Your task to perform on an android device: Search for vegetarian restaurants on Maps Image 0: 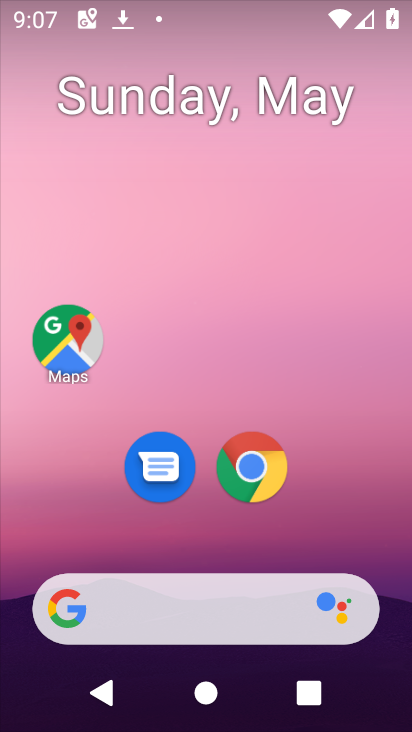
Step 0: drag from (402, 502) to (346, 142)
Your task to perform on an android device: Search for vegetarian restaurants on Maps Image 1: 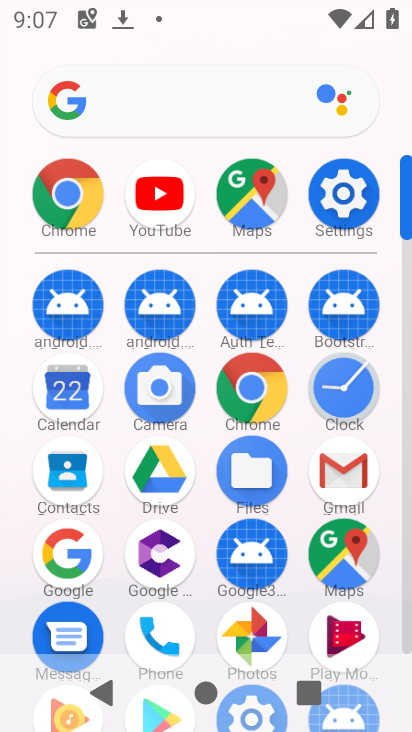
Step 1: click (265, 190)
Your task to perform on an android device: Search for vegetarian restaurants on Maps Image 2: 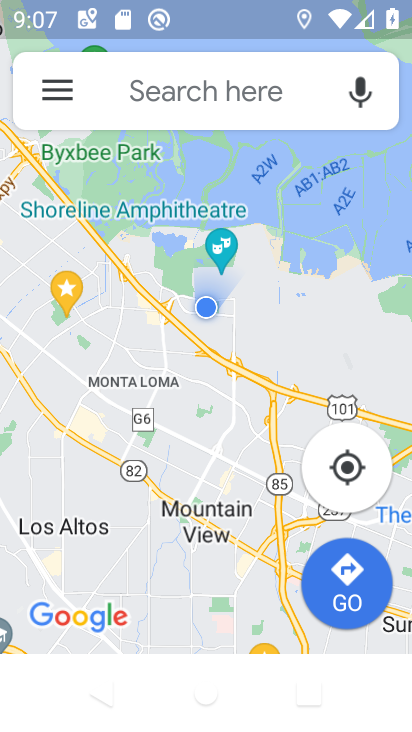
Step 2: click (219, 110)
Your task to perform on an android device: Search for vegetarian restaurants on Maps Image 3: 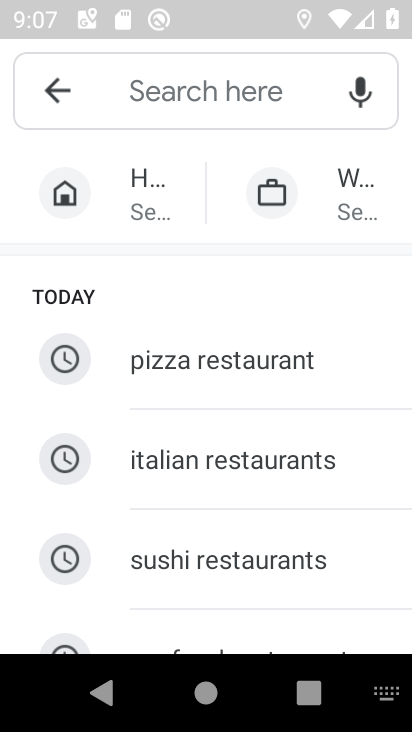
Step 3: drag from (189, 620) to (179, 299)
Your task to perform on an android device: Search for vegetarian restaurants on Maps Image 4: 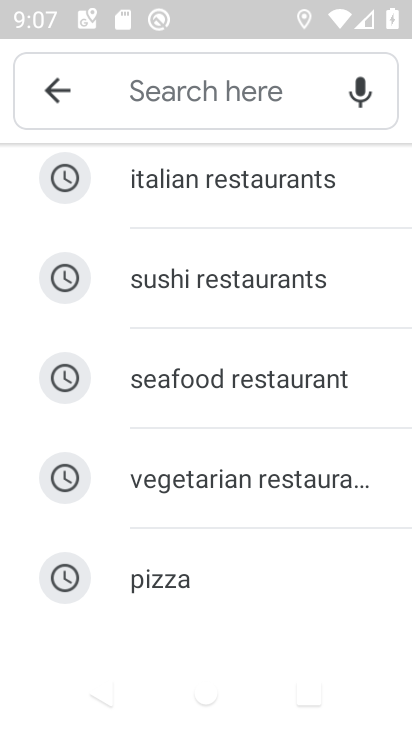
Step 4: click (194, 494)
Your task to perform on an android device: Search for vegetarian restaurants on Maps Image 5: 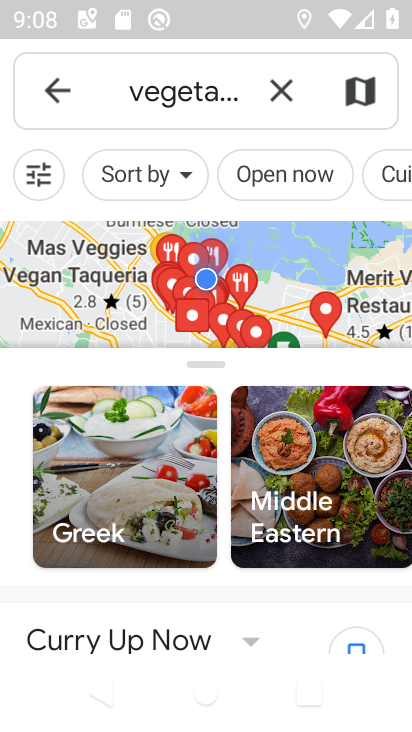
Step 5: task complete